Your task to perform on an android device: Add "apple airpods pro" to the cart on target Image 0: 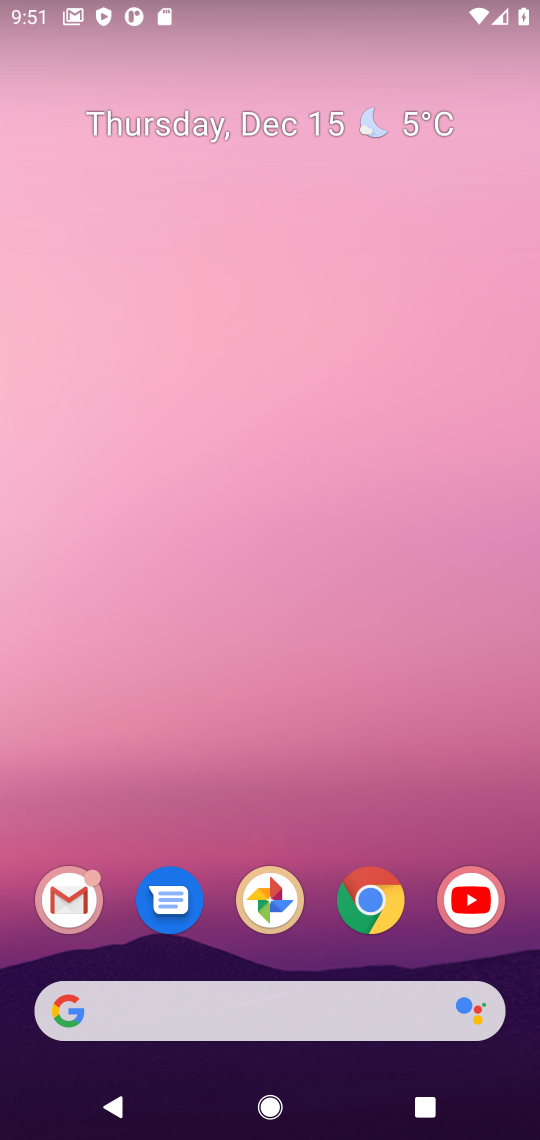
Step 0: click (394, 903)
Your task to perform on an android device: Add "apple airpods pro" to the cart on target Image 1: 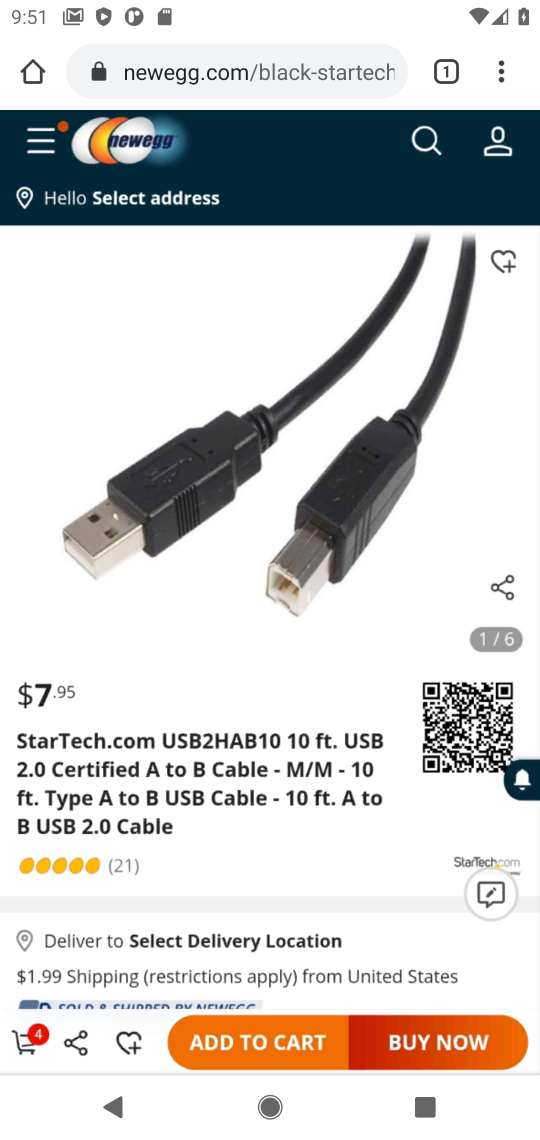
Step 1: click (237, 73)
Your task to perform on an android device: Add "apple airpods pro" to the cart on target Image 2: 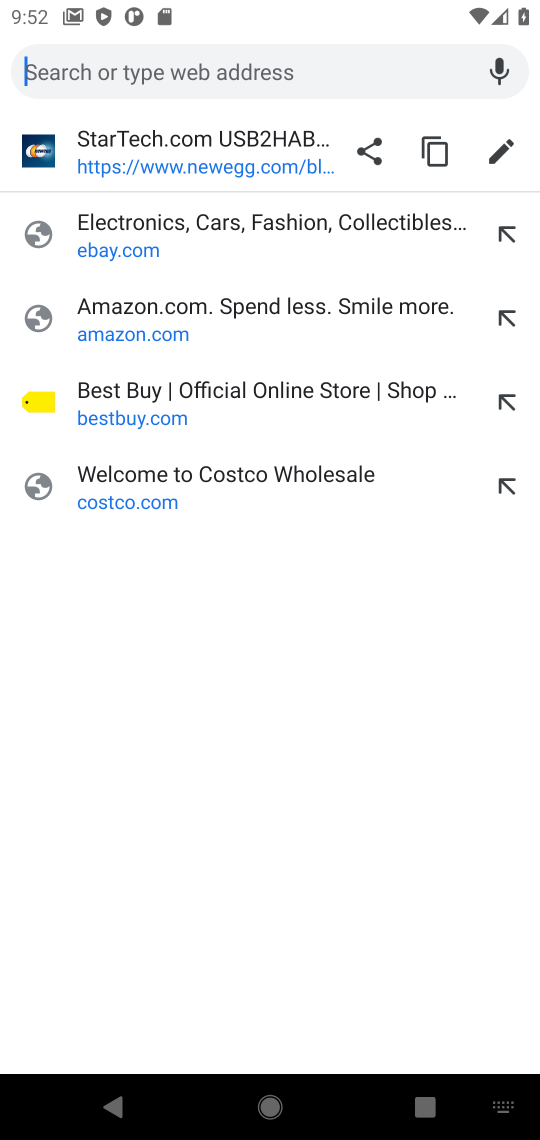
Step 2: type "target"
Your task to perform on an android device: Add "apple airpods pro" to the cart on target Image 3: 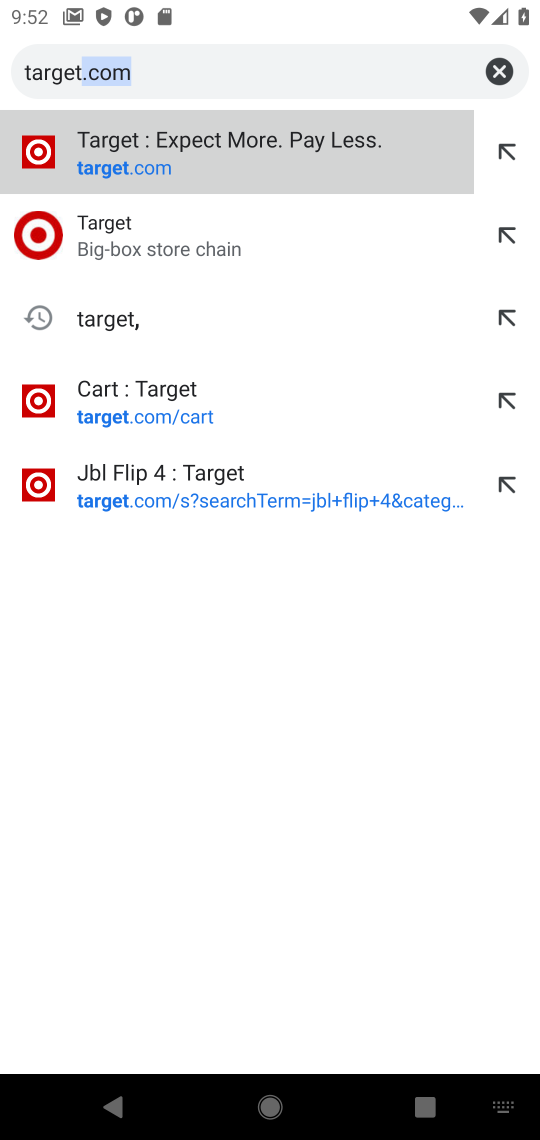
Step 3: click (173, 149)
Your task to perform on an android device: Add "apple airpods pro" to the cart on target Image 4: 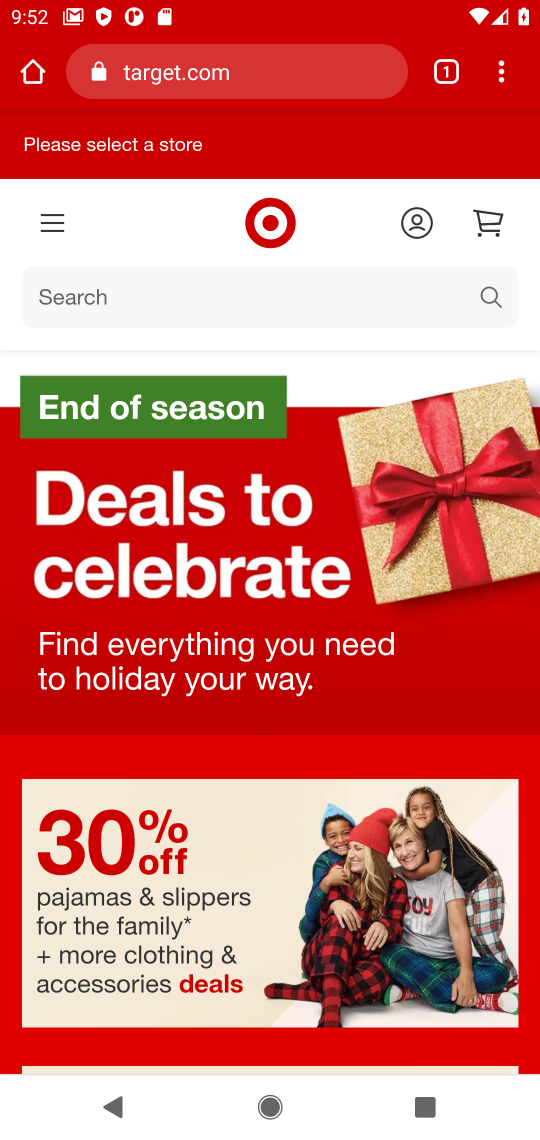
Step 4: click (114, 285)
Your task to perform on an android device: Add "apple airpods pro" to the cart on target Image 5: 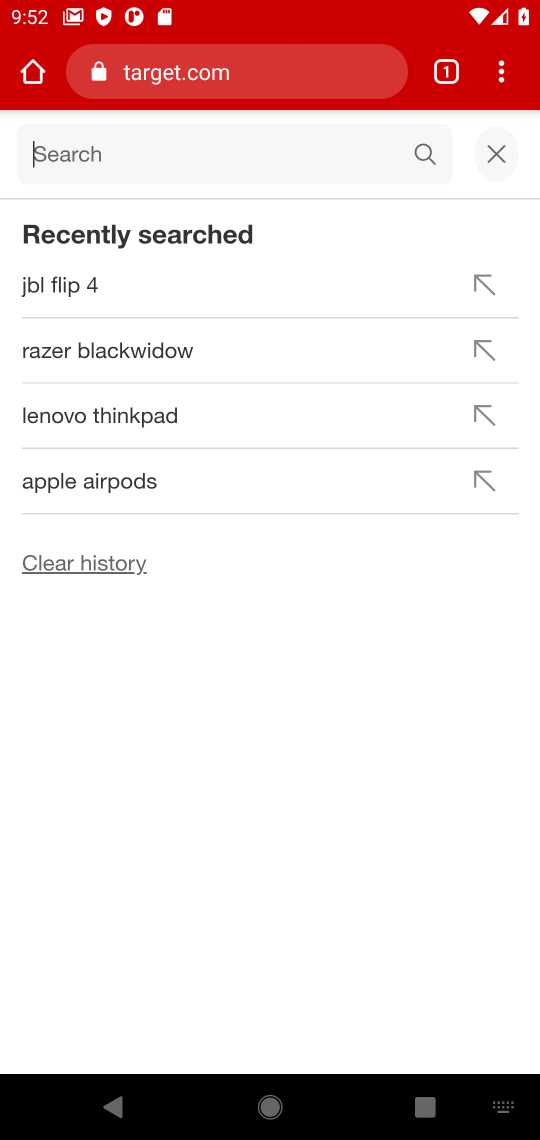
Step 5: type "apple airpods pro"
Your task to perform on an android device: Add "apple airpods pro" to the cart on target Image 6: 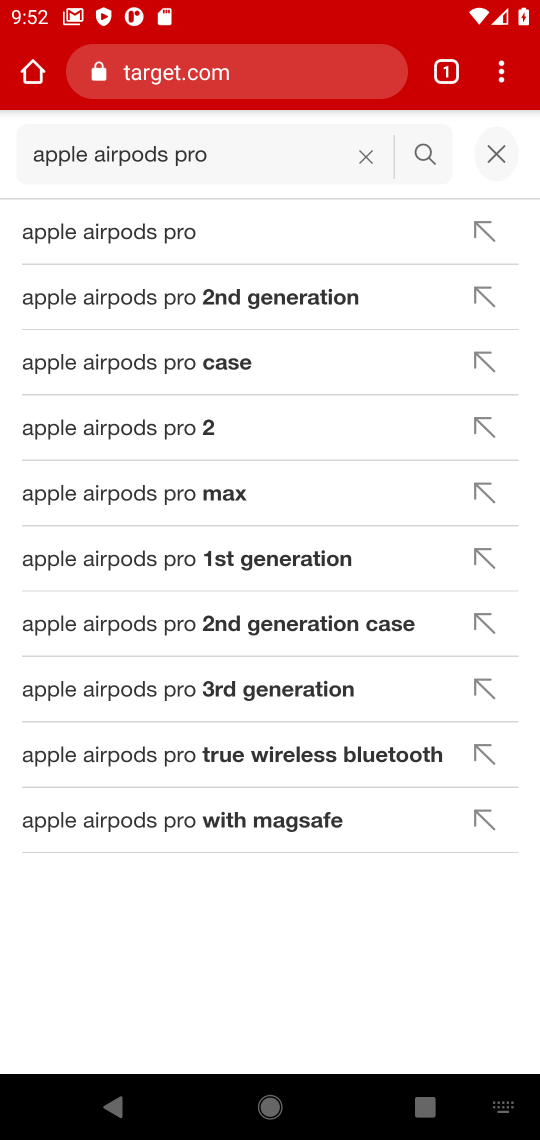
Step 6: press enter
Your task to perform on an android device: Add "apple airpods pro" to the cart on target Image 7: 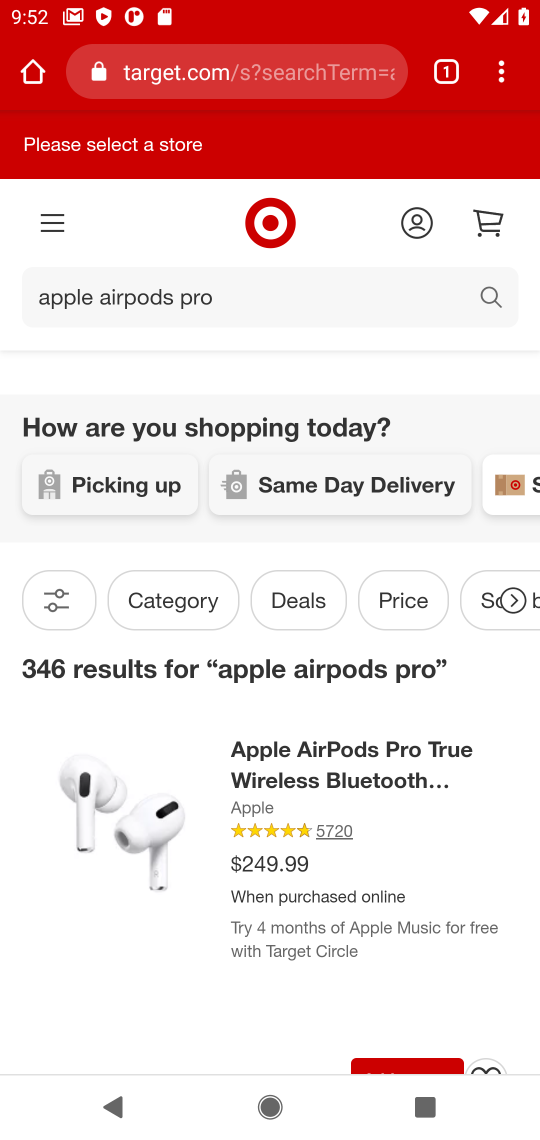
Step 7: drag from (407, 844) to (337, 562)
Your task to perform on an android device: Add "apple airpods pro" to the cart on target Image 8: 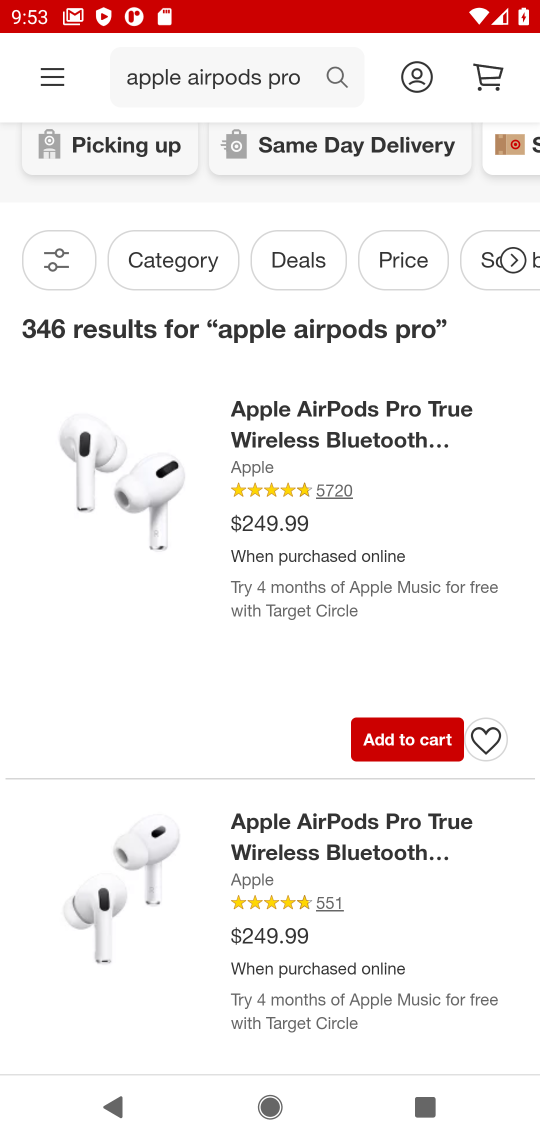
Step 8: click (394, 748)
Your task to perform on an android device: Add "apple airpods pro" to the cart on target Image 9: 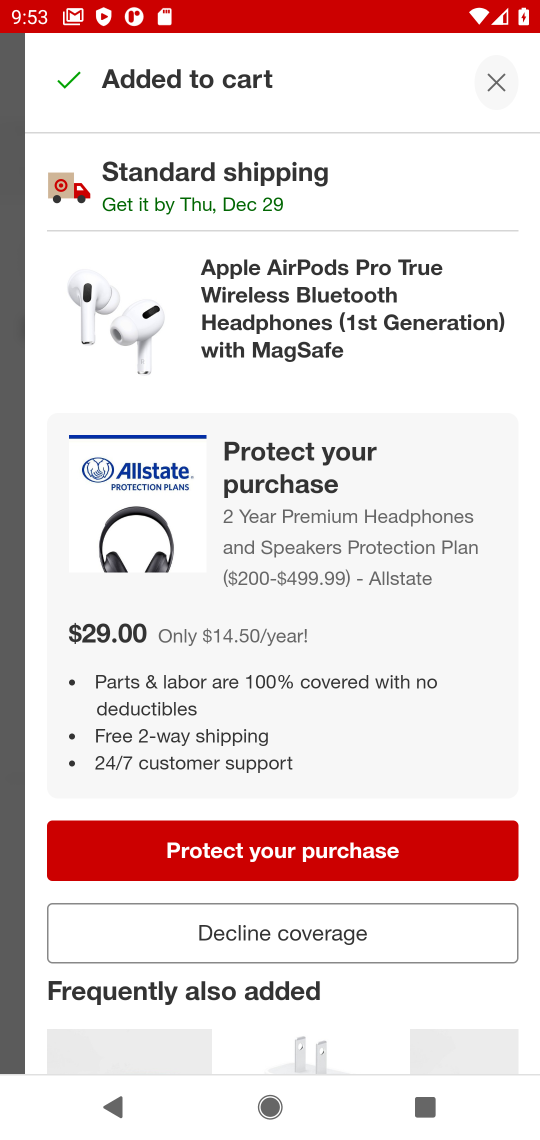
Step 9: click (305, 857)
Your task to perform on an android device: Add "apple airpods pro" to the cart on target Image 10: 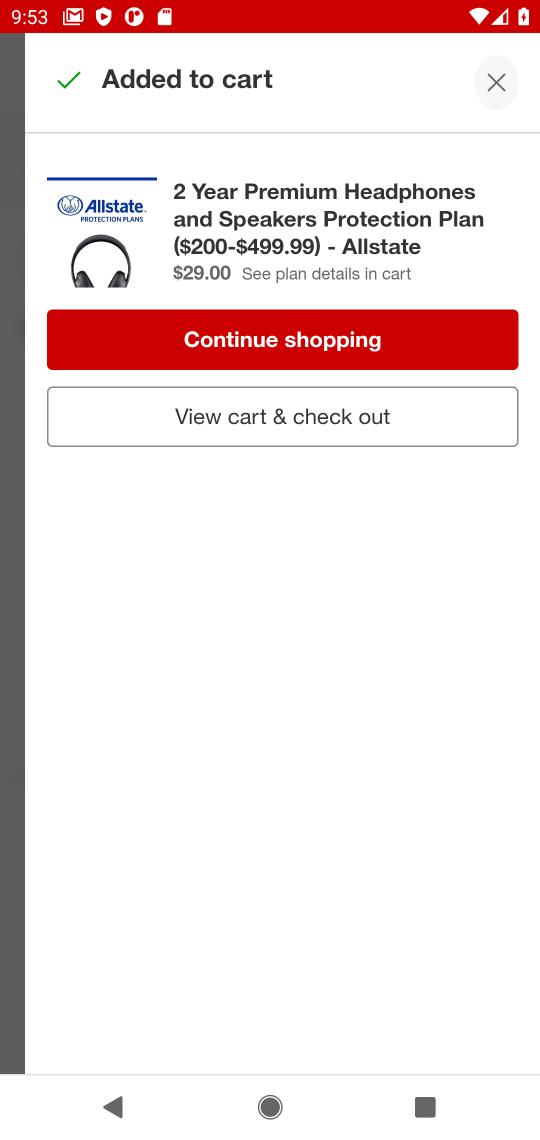
Step 10: task complete